Your task to perform on an android device: What's on my calendar tomorrow? Image 0: 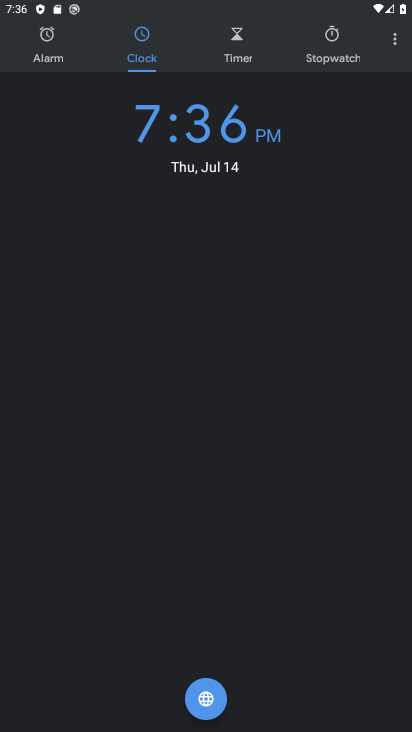
Step 0: press home button
Your task to perform on an android device: What's on my calendar tomorrow? Image 1: 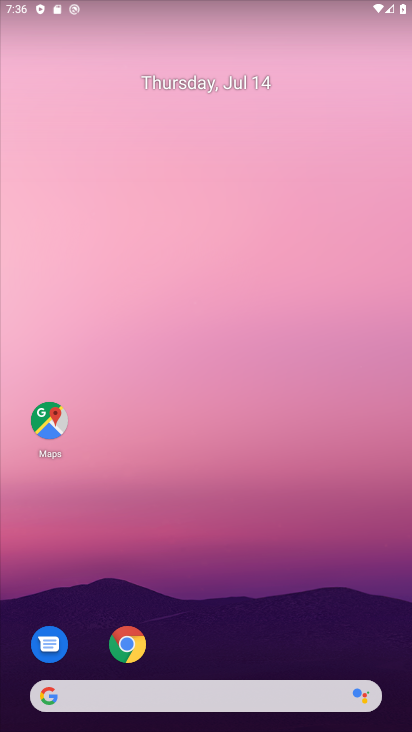
Step 1: drag from (206, 699) to (328, 165)
Your task to perform on an android device: What's on my calendar tomorrow? Image 2: 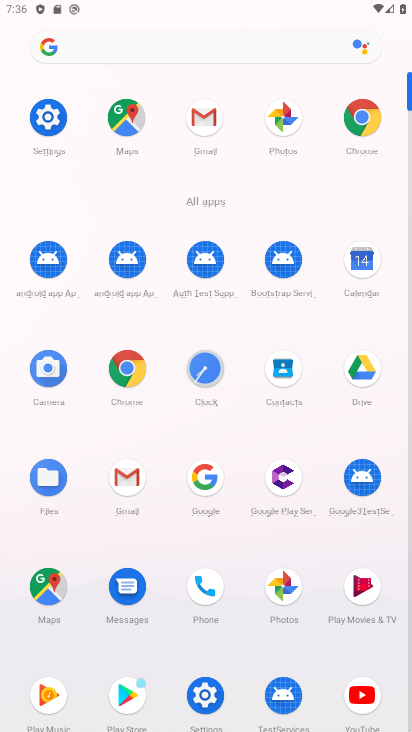
Step 2: click (366, 271)
Your task to perform on an android device: What's on my calendar tomorrow? Image 3: 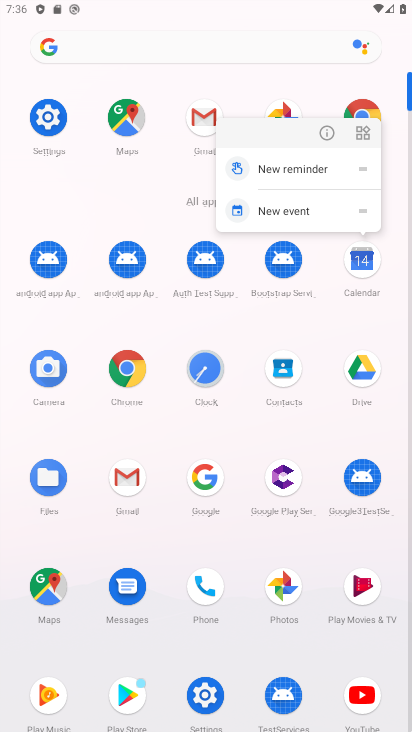
Step 3: click (361, 267)
Your task to perform on an android device: What's on my calendar tomorrow? Image 4: 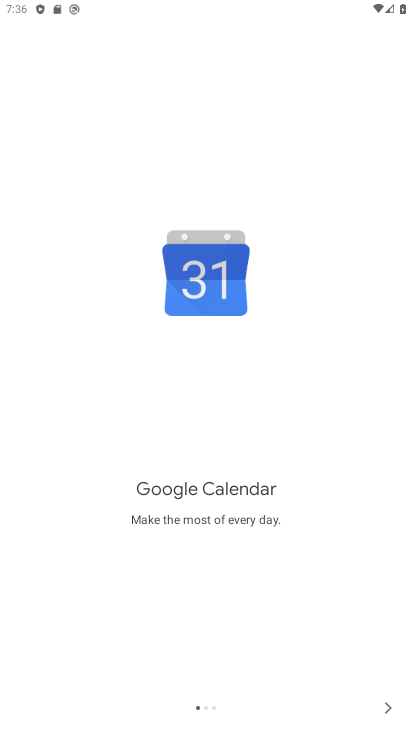
Step 4: click (390, 705)
Your task to perform on an android device: What's on my calendar tomorrow? Image 5: 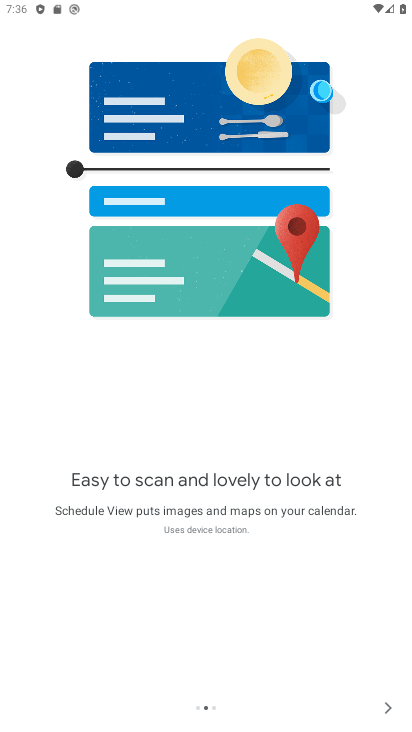
Step 5: click (390, 705)
Your task to perform on an android device: What's on my calendar tomorrow? Image 6: 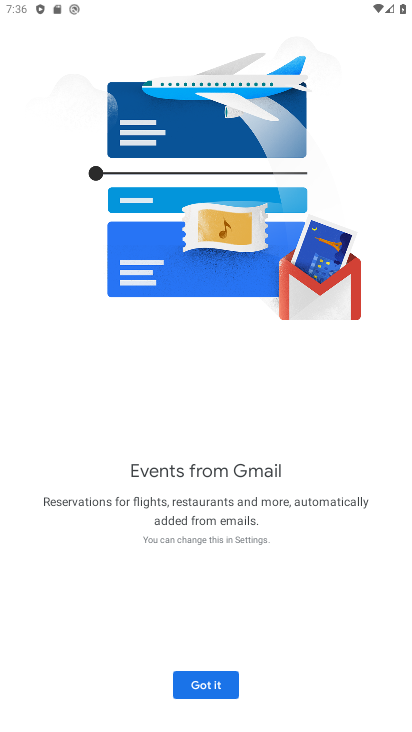
Step 6: click (221, 678)
Your task to perform on an android device: What's on my calendar tomorrow? Image 7: 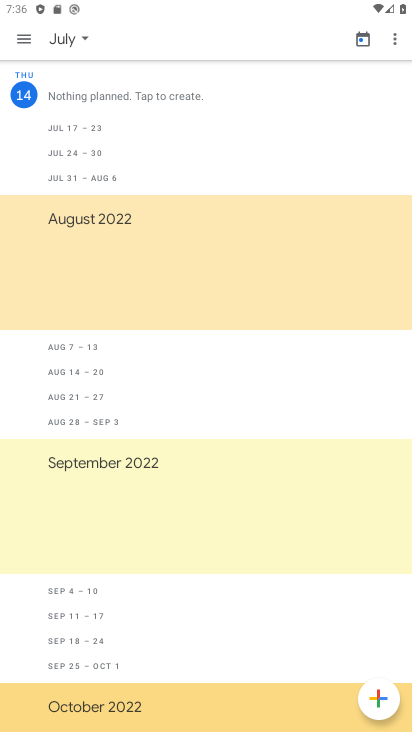
Step 7: click (63, 39)
Your task to perform on an android device: What's on my calendar tomorrow? Image 8: 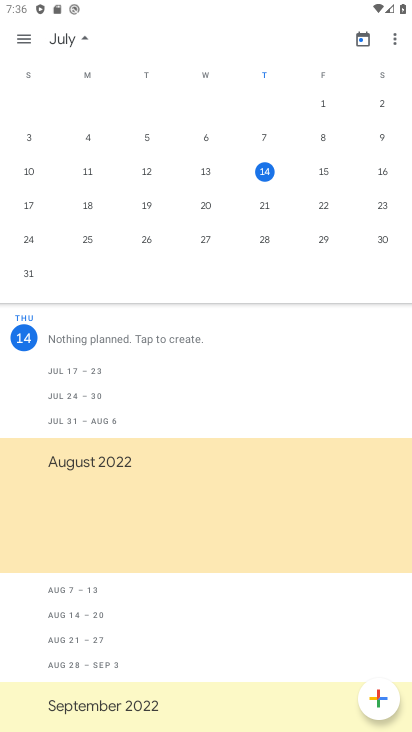
Step 8: click (321, 172)
Your task to perform on an android device: What's on my calendar tomorrow? Image 9: 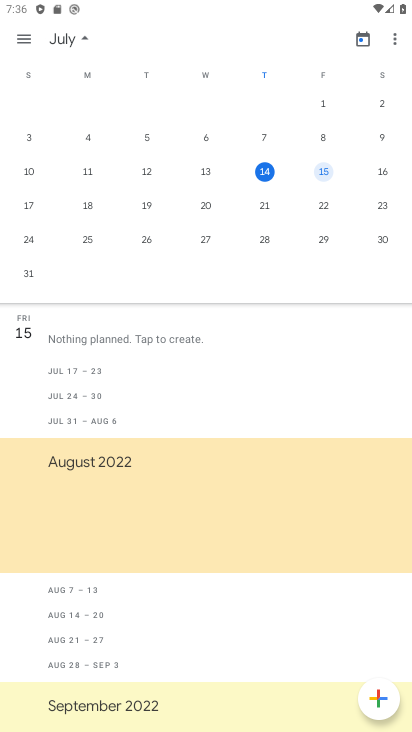
Step 9: click (22, 37)
Your task to perform on an android device: What's on my calendar tomorrow? Image 10: 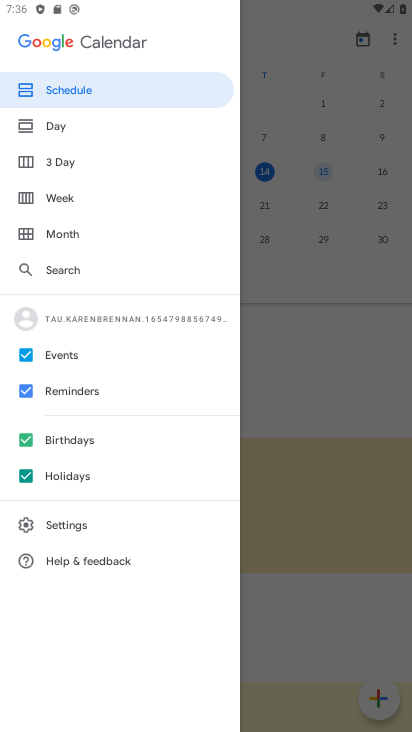
Step 10: click (61, 134)
Your task to perform on an android device: What's on my calendar tomorrow? Image 11: 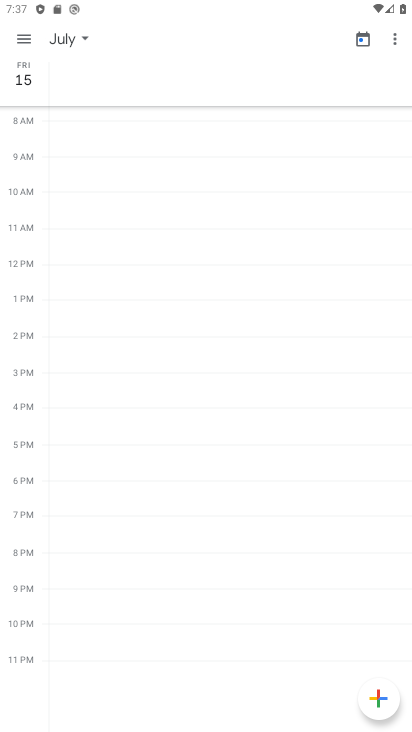
Step 11: click (36, 38)
Your task to perform on an android device: What's on my calendar tomorrow? Image 12: 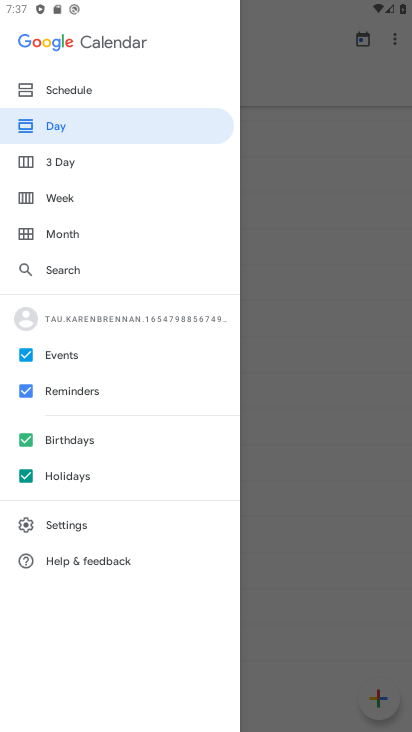
Step 12: click (126, 84)
Your task to perform on an android device: What's on my calendar tomorrow? Image 13: 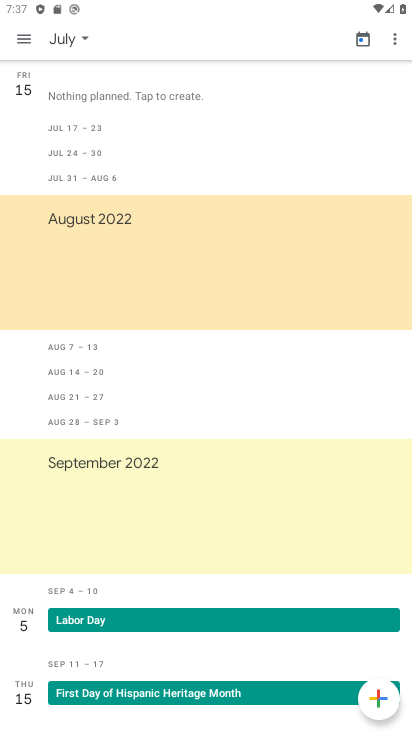
Step 13: task complete